Your task to perform on an android device: check the backup settings in the google photos Image 0: 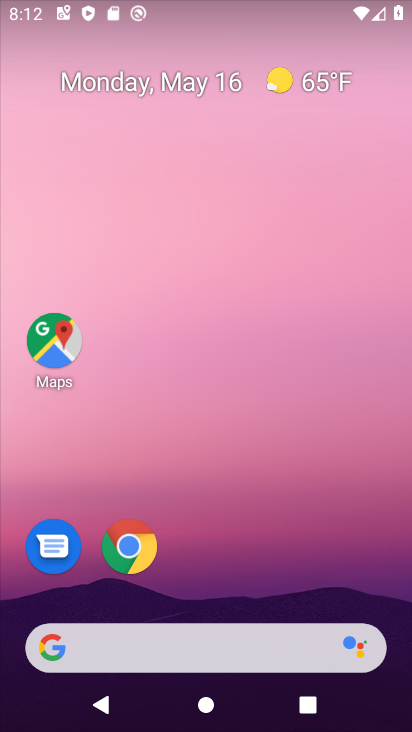
Step 0: drag from (225, 554) to (193, 83)
Your task to perform on an android device: check the backup settings in the google photos Image 1: 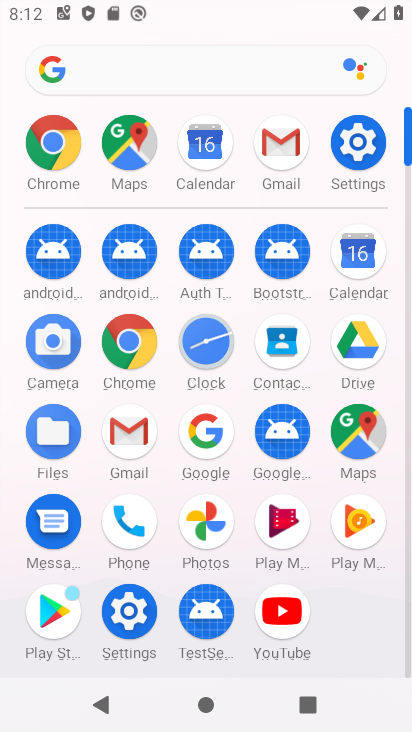
Step 1: click (216, 534)
Your task to perform on an android device: check the backup settings in the google photos Image 2: 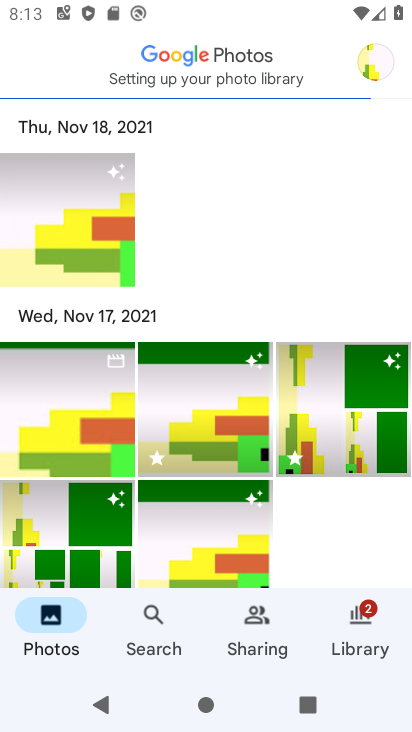
Step 2: click (367, 71)
Your task to perform on an android device: check the backup settings in the google photos Image 3: 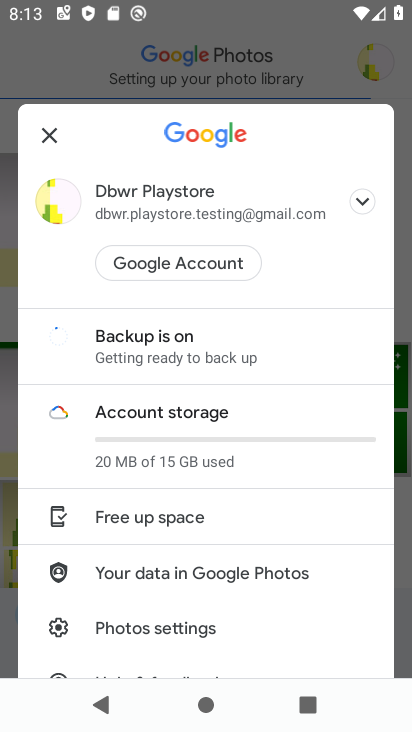
Step 3: click (226, 318)
Your task to perform on an android device: check the backup settings in the google photos Image 4: 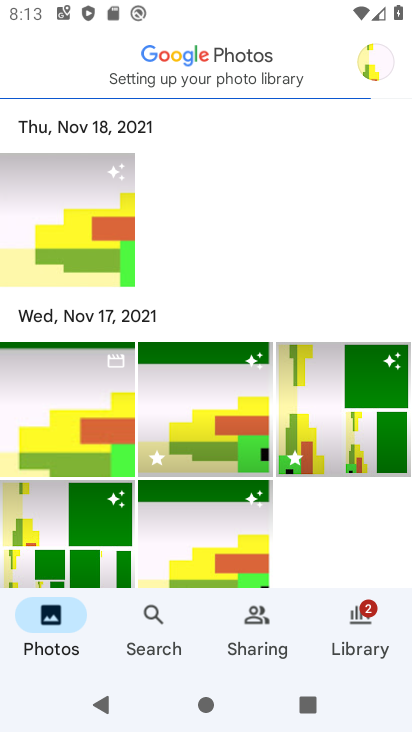
Step 4: task complete